Your task to perform on an android device: toggle improve location accuracy Image 0: 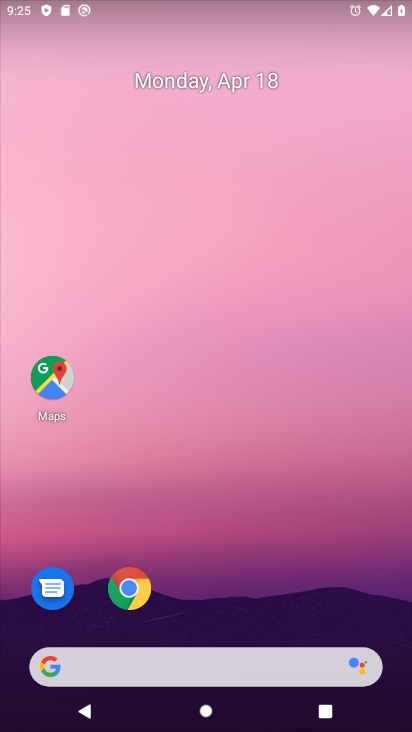
Step 0: drag from (234, 628) to (285, 141)
Your task to perform on an android device: toggle improve location accuracy Image 1: 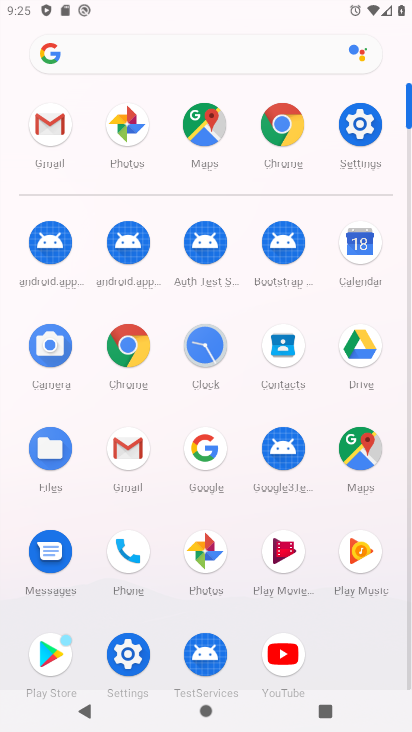
Step 1: click (350, 126)
Your task to perform on an android device: toggle improve location accuracy Image 2: 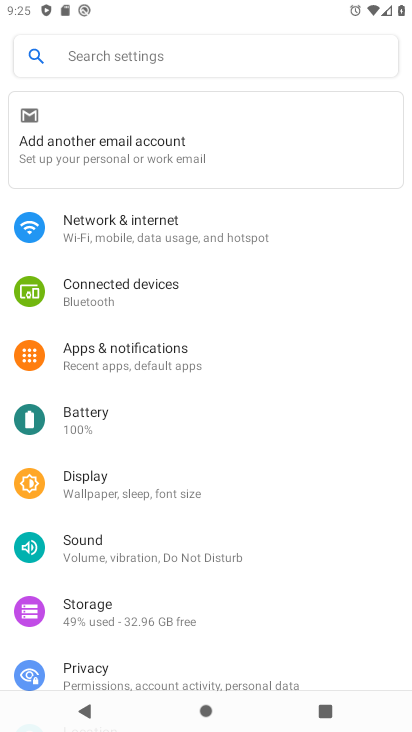
Step 2: drag from (127, 625) to (236, 219)
Your task to perform on an android device: toggle improve location accuracy Image 3: 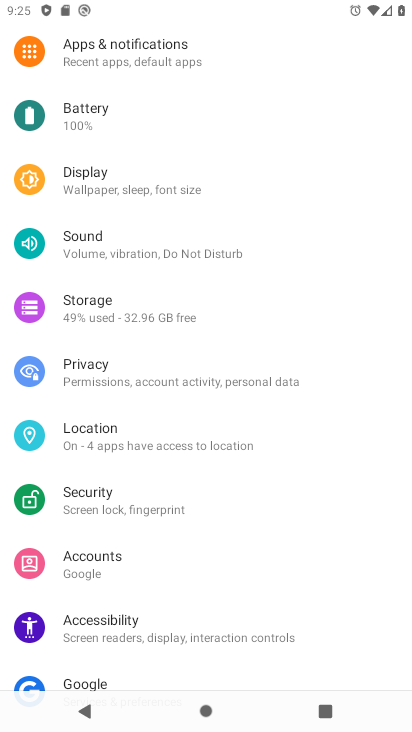
Step 3: click (144, 433)
Your task to perform on an android device: toggle improve location accuracy Image 4: 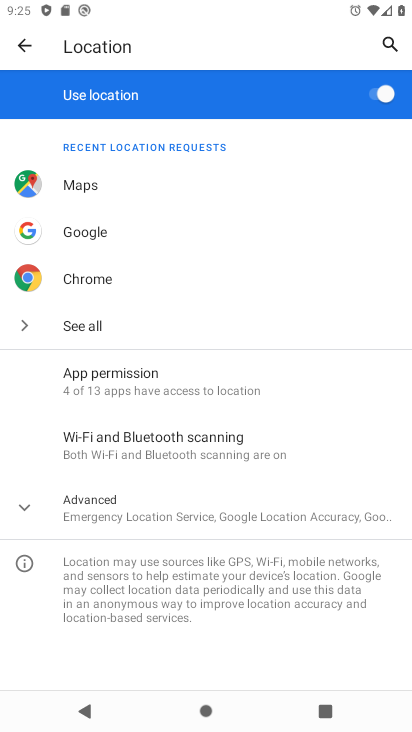
Step 4: click (193, 508)
Your task to perform on an android device: toggle improve location accuracy Image 5: 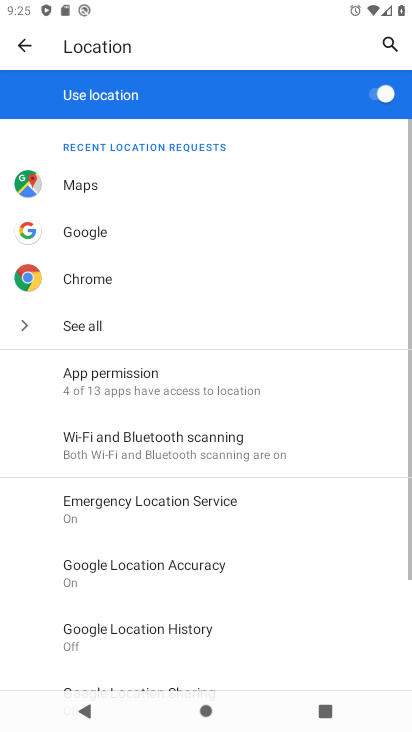
Step 5: drag from (193, 660) to (230, 489)
Your task to perform on an android device: toggle improve location accuracy Image 6: 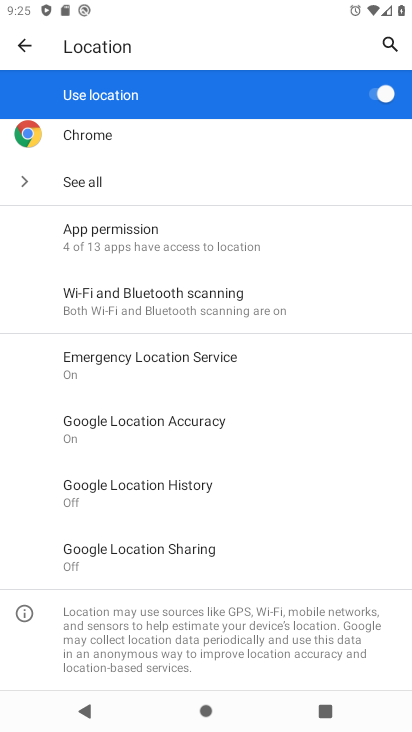
Step 6: click (220, 425)
Your task to perform on an android device: toggle improve location accuracy Image 7: 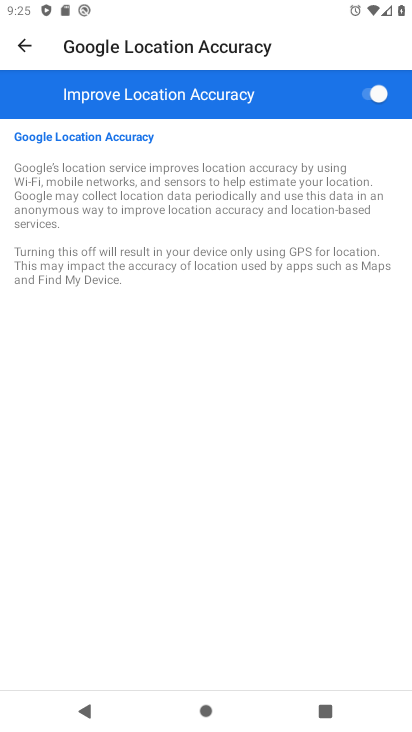
Step 7: click (374, 94)
Your task to perform on an android device: toggle improve location accuracy Image 8: 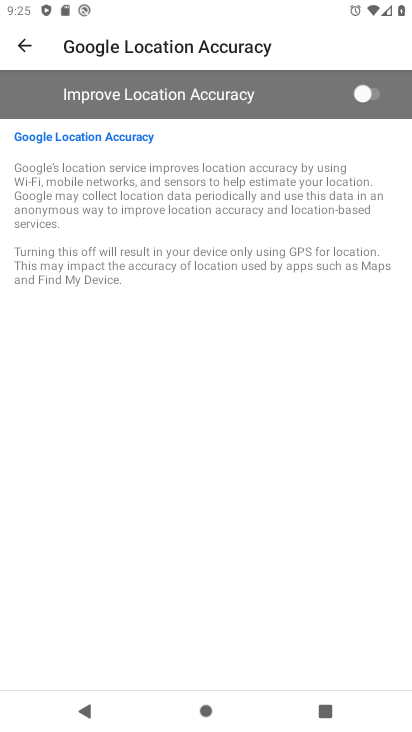
Step 8: task complete